Your task to perform on an android device: When is my next appointment? Image 0: 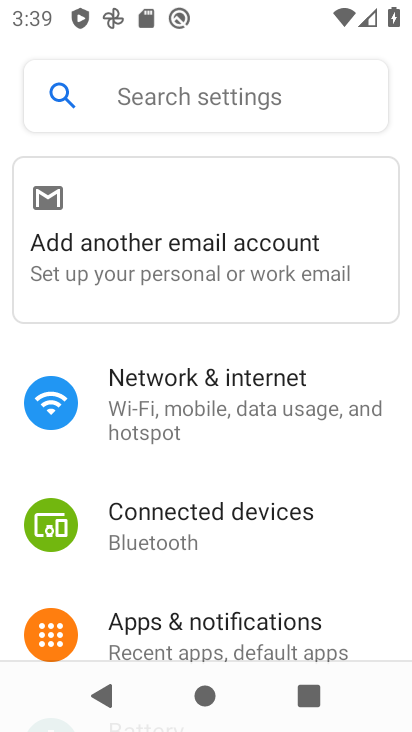
Step 0: press home button
Your task to perform on an android device: When is my next appointment? Image 1: 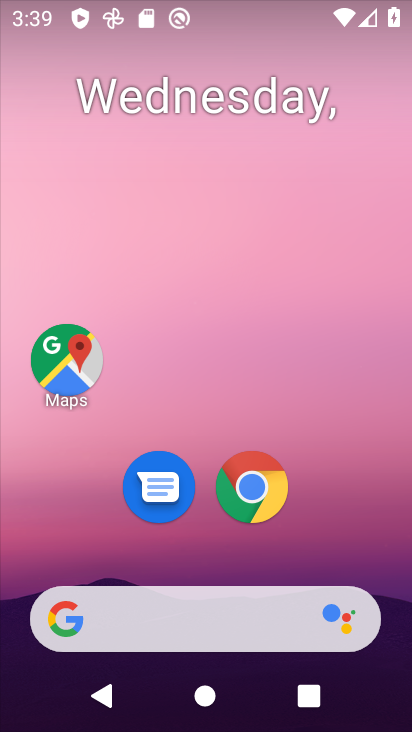
Step 1: drag from (363, 541) to (358, 197)
Your task to perform on an android device: When is my next appointment? Image 2: 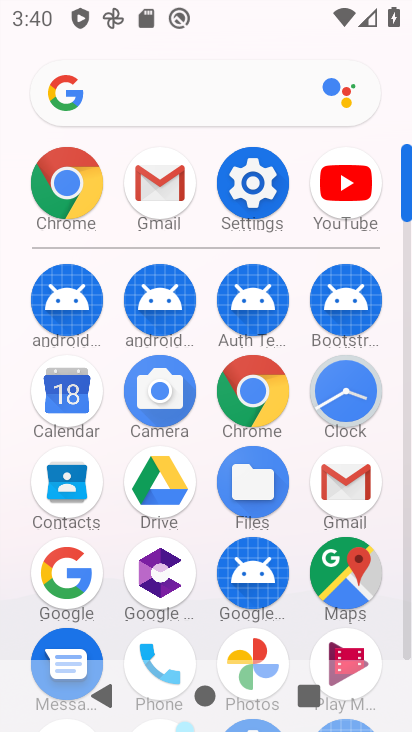
Step 2: click (66, 401)
Your task to perform on an android device: When is my next appointment? Image 3: 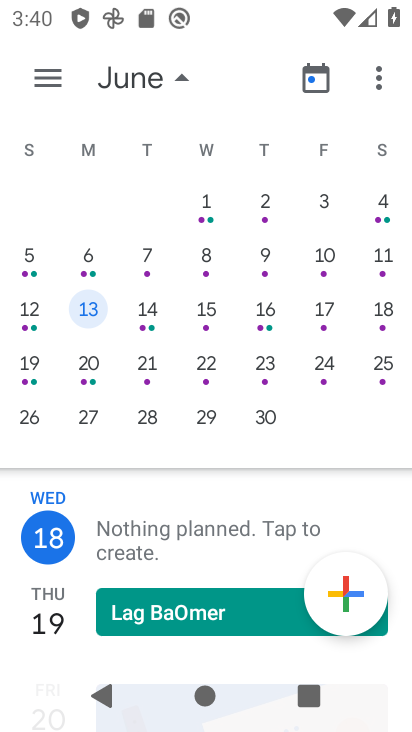
Step 3: drag from (99, 196) to (402, 200)
Your task to perform on an android device: When is my next appointment? Image 4: 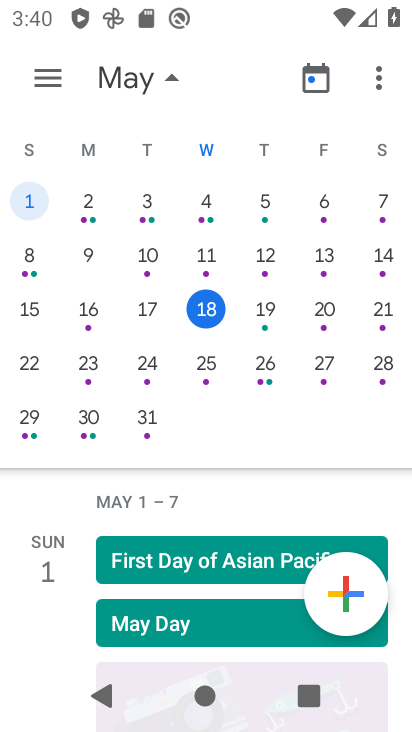
Step 4: click (275, 312)
Your task to perform on an android device: When is my next appointment? Image 5: 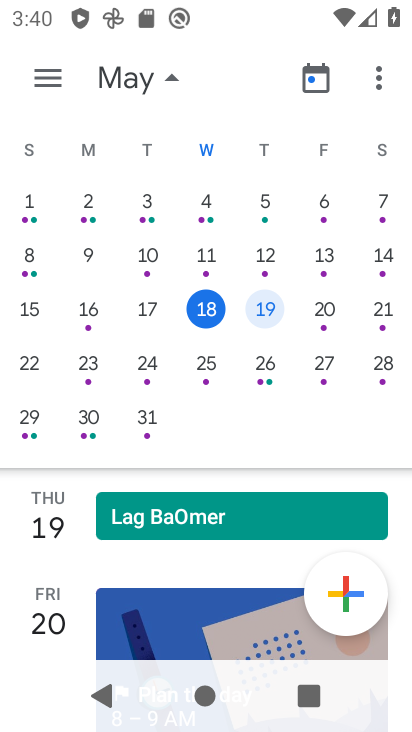
Step 5: drag from (240, 565) to (251, 362)
Your task to perform on an android device: When is my next appointment? Image 6: 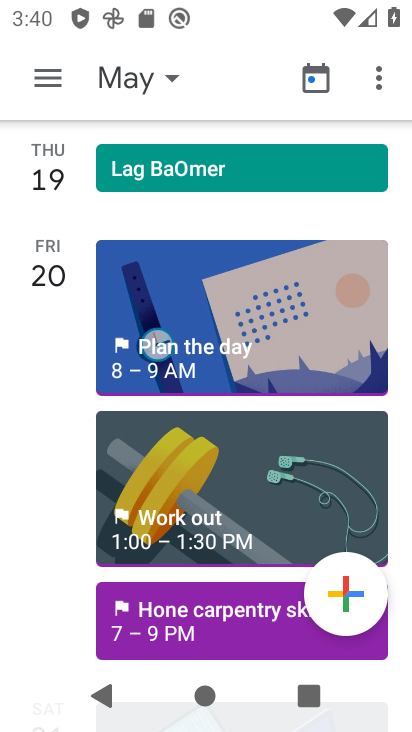
Step 6: click (233, 496)
Your task to perform on an android device: When is my next appointment? Image 7: 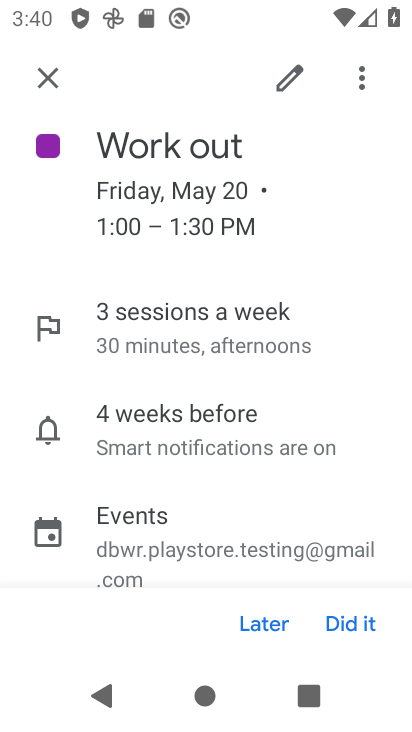
Step 7: task complete